Your task to perform on an android device: open chrome privacy settings Image 0: 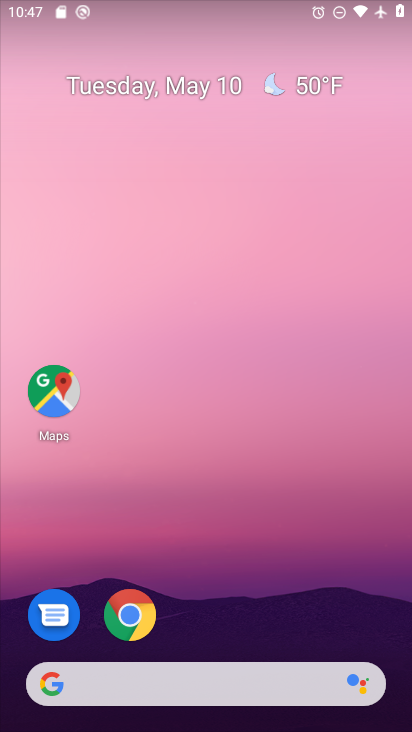
Step 0: click (128, 611)
Your task to perform on an android device: open chrome privacy settings Image 1: 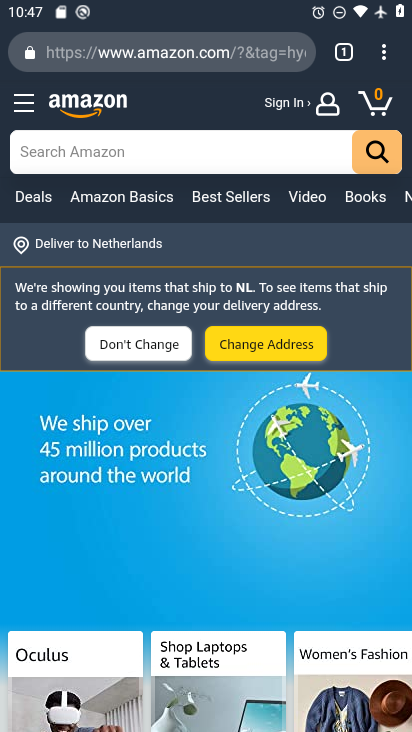
Step 1: click (381, 60)
Your task to perform on an android device: open chrome privacy settings Image 2: 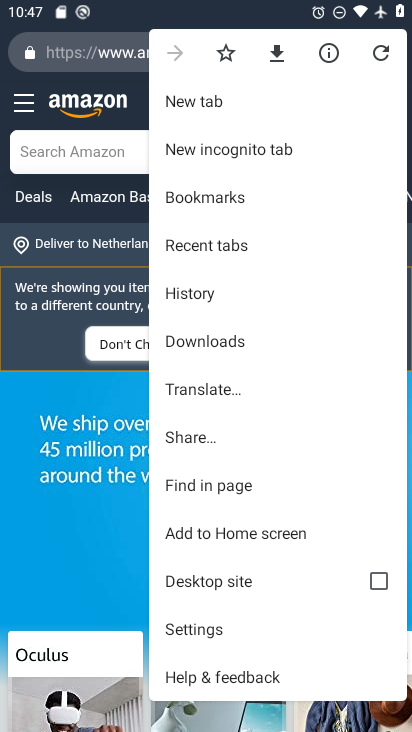
Step 2: click (204, 609)
Your task to perform on an android device: open chrome privacy settings Image 3: 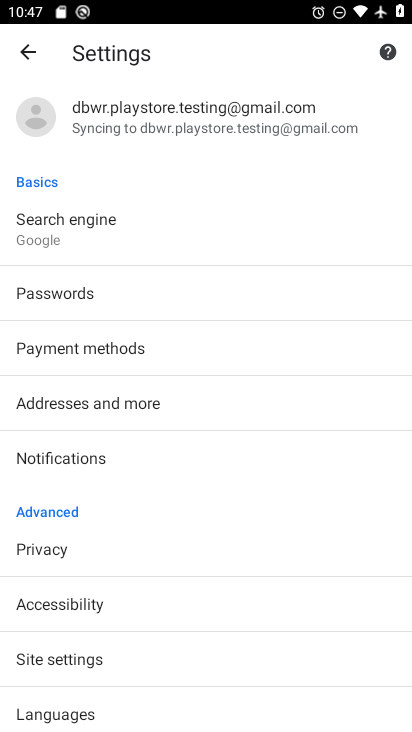
Step 3: click (27, 537)
Your task to perform on an android device: open chrome privacy settings Image 4: 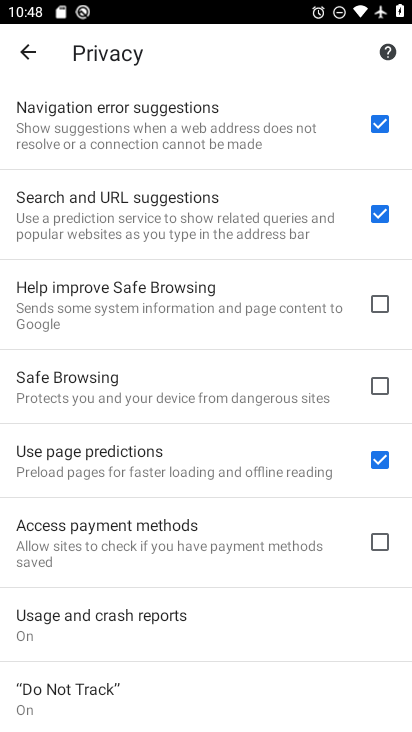
Step 4: task complete